Your task to perform on an android device: Show me popular games on the Play Store Image 0: 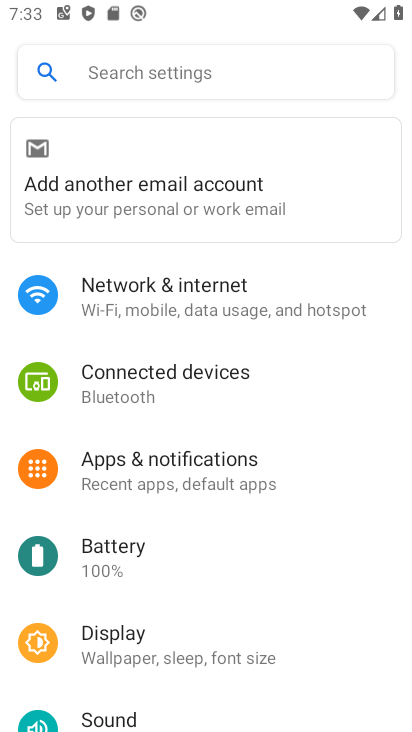
Step 0: press home button
Your task to perform on an android device: Show me popular games on the Play Store Image 1: 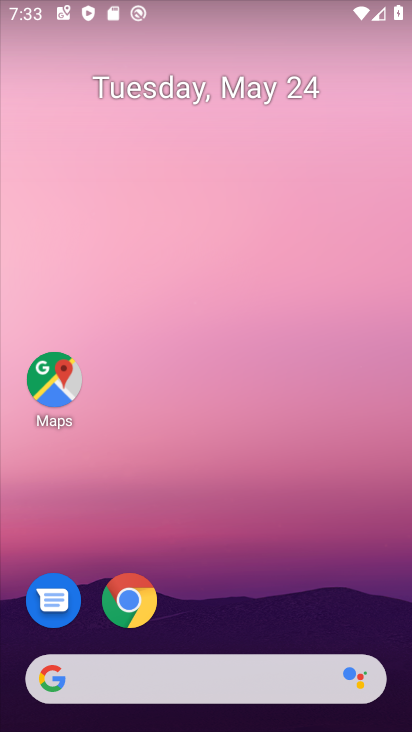
Step 1: drag from (202, 602) to (276, 70)
Your task to perform on an android device: Show me popular games on the Play Store Image 2: 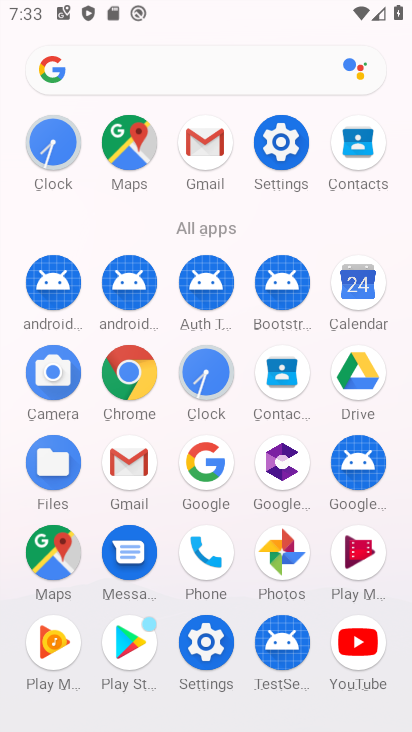
Step 2: click (132, 648)
Your task to perform on an android device: Show me popular games on the Play Store Image 3: 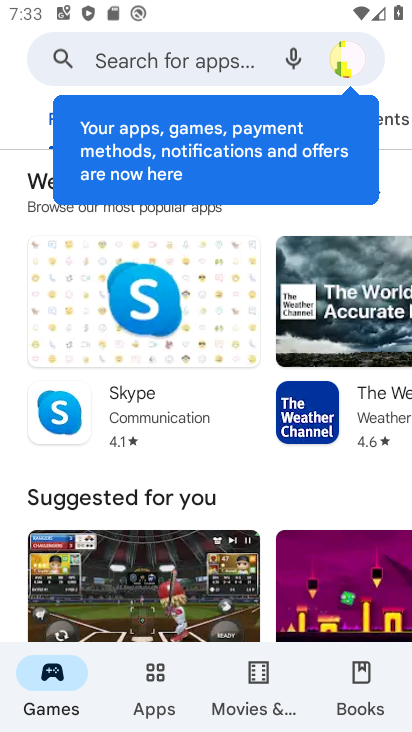
Step 3: click (55, 701)
Your task to perform on an android device: Show me popular games on the Play Store Image 4: 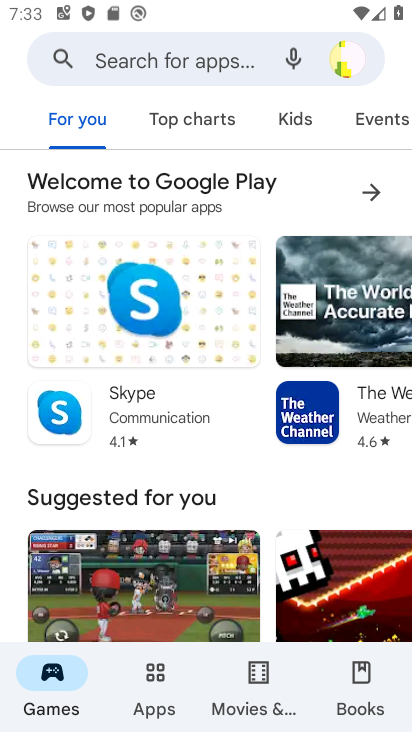
Step 4: drag from (128, 570) to (252, 11)
Your task to perform on an android device: Show me popular games on the Play Store Image 5: 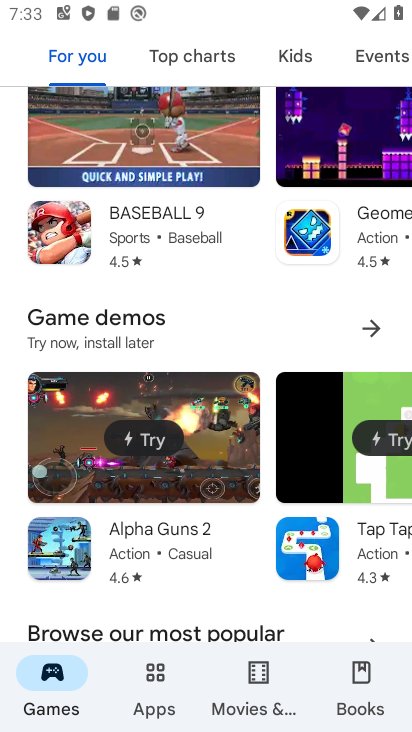
Step 5: drag from (212, 593) to (264, 107)
Your task to perform on an android device: Show me popular games on the Play Store Image 6: 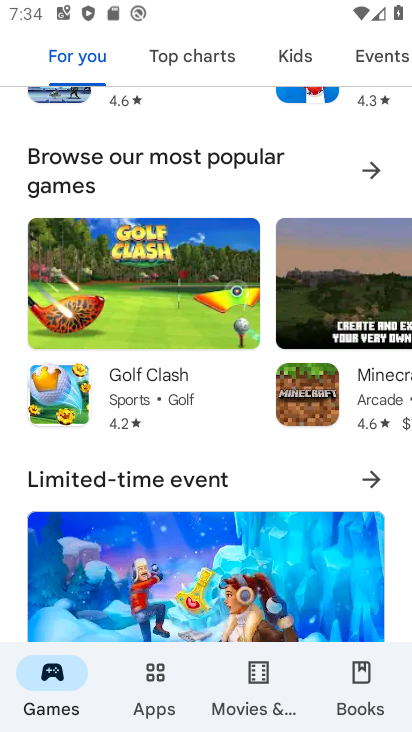
Step 6: click (367, 169)
Your task to perform on an android device: Show me popular games on the Play Store Image 7: 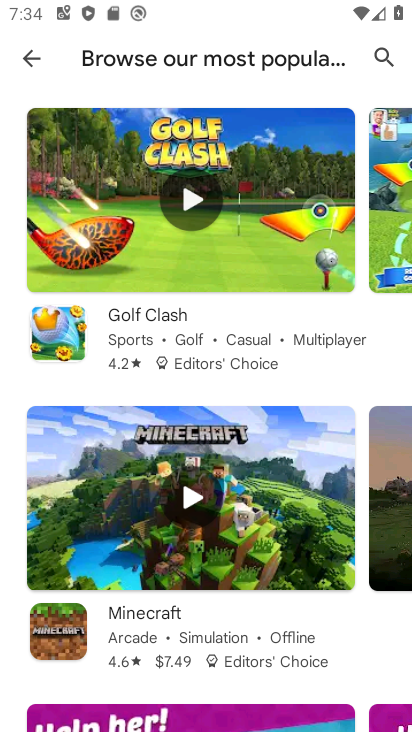
Step 7: task complete